Your task to perform on an android device: uninstall "Etsy: Buy & Sell Unique Items" Image 0: 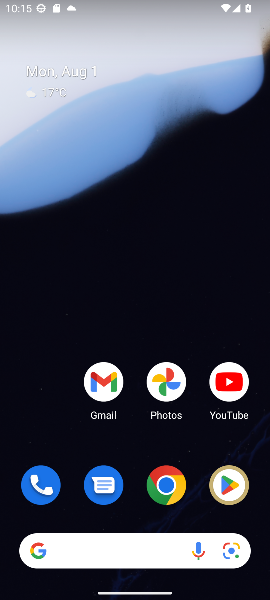
Step 0: drag from (110, 563) to (148, 93)
Your task to perform on an android device: uninstall "Etsy: Buy & Sell Unique Items" Image 1: 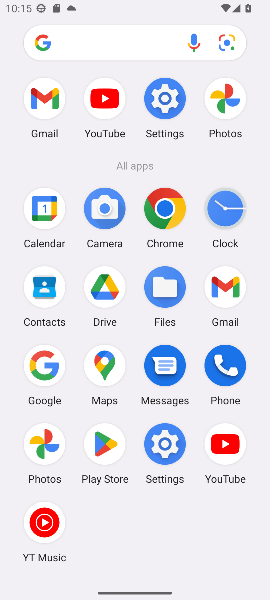
Step 1: click (99, 448)
Your task to perform on an android device: uninstall "Etsy: Buy & Sell Unique Items" Image 2: 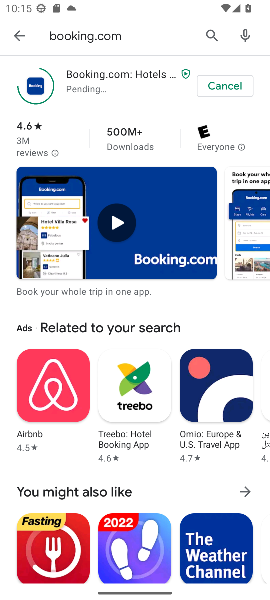
Step 2: click (212, 30)
Your task to perform on an android device: uninstall "Etsy: Buy & Sell Unique Items" Image 3: 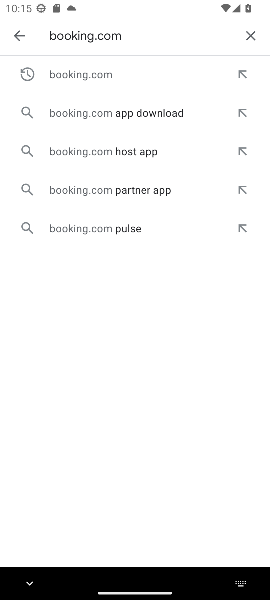
Step 3: click (245, 28)
Your task to perform on an android device: uninstall "Etsy: Buy & Sell Unique Items" Image 4: 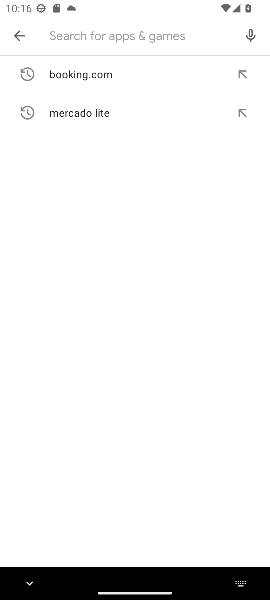
Step 4: type "etsy: buy & sell"
Your task to perform on an android device: uninstall "Etsy: Buy & Sell Unique Items" Image 5: 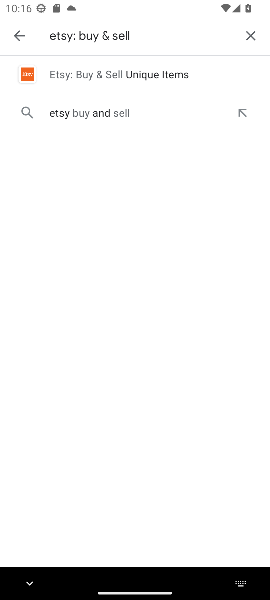
Step 5: click (127, 74)
Your task to perform on an android device: uninstall "Etsy: Buy & Sell Unique Items" Image 6: 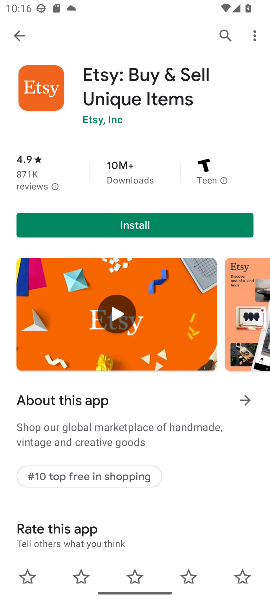
Step 6: task complete